Your task to perform on an android device: clear history in the chrome app Image 0: 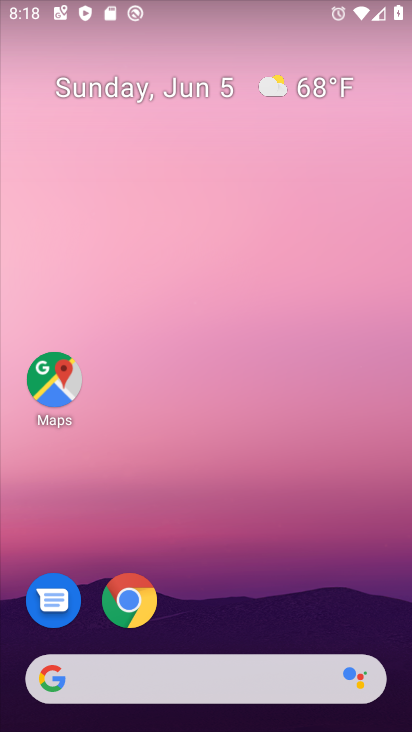
Step 0: drag from (392, 618) to (230, 39)
Your task to perform on an android device: clear history in the chrome app Image 1: 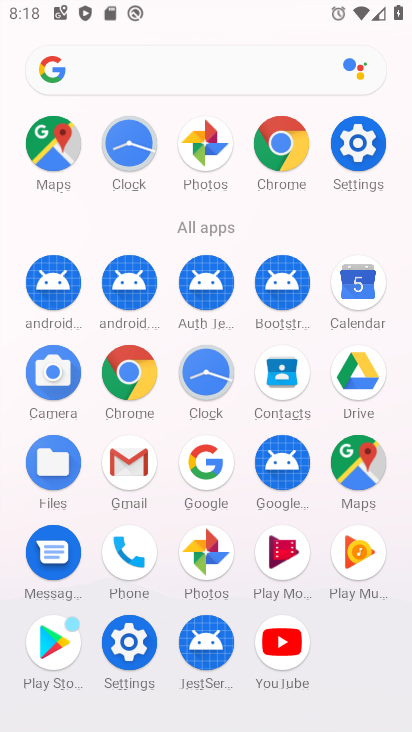
Step 1: click (291, 169)
Your task to perform on an android device: clear history in the chrome app Image 2: 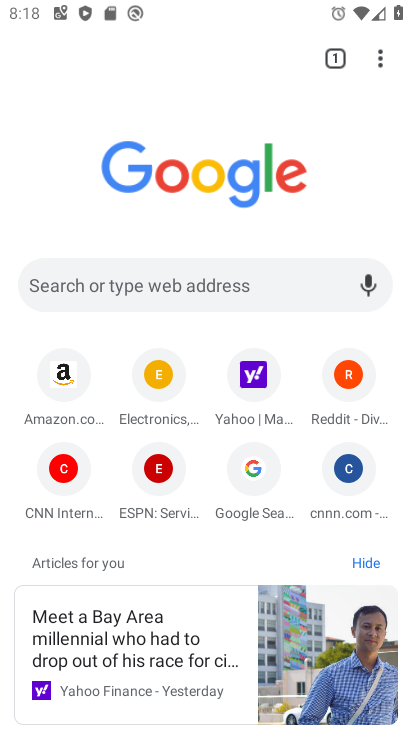
Step 2: click (385, 51)
Your task to perform on an android device: clear history in the chrome app Image 3: 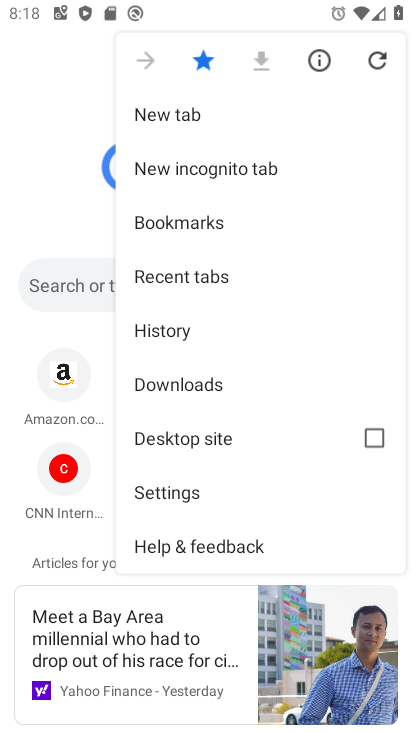
Step 3: click (177, 329)
Your task to perform on an android device: clear history in the chrome app Image 4: 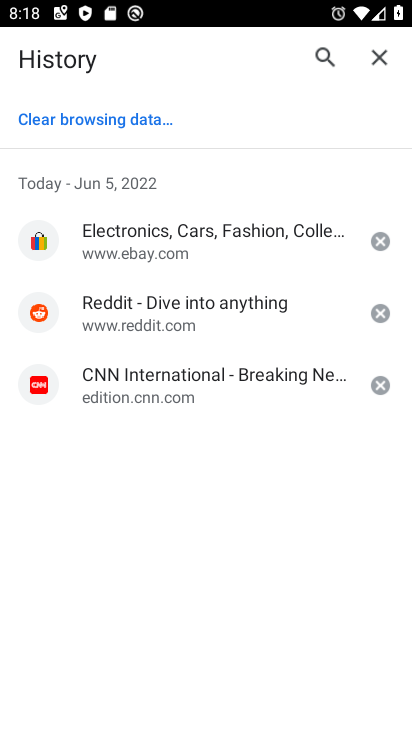
Step 4: click (115, 116)
Your task to perform on an android device: clear history in the chrome app Image 5: 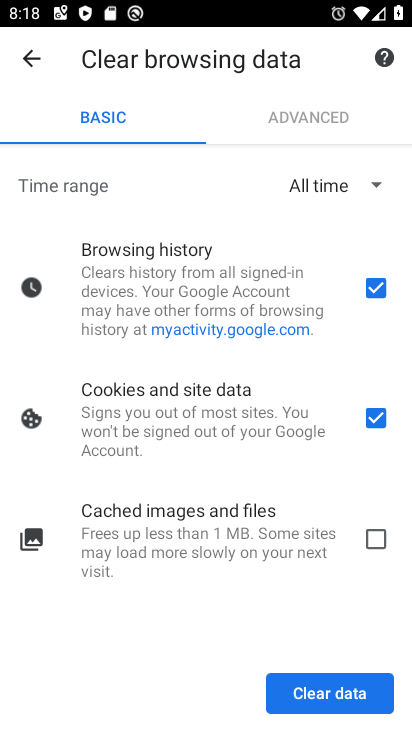
Step 5: click (322, 687)
Your task to perform on an android device: clear history in the chrome app Image 6: 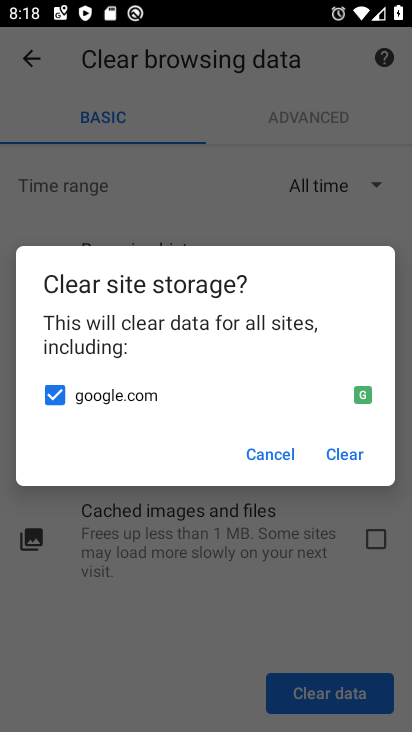
Step 6: click (356, 451)
Your task to perform on an android device: clear history in the chrome app Image 7: 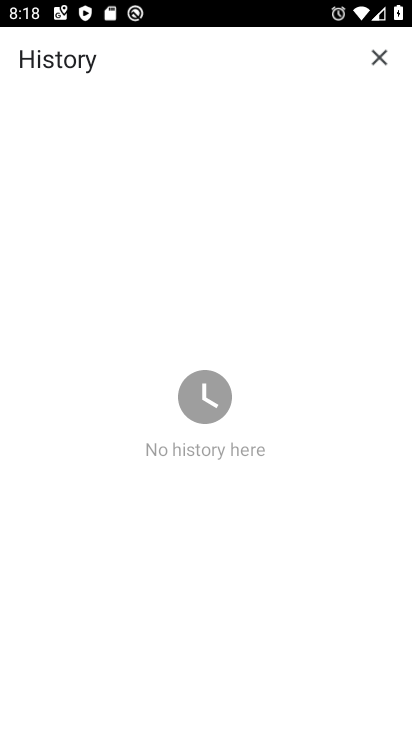
Step 7: task complete